Your task to perform on an android device: change notifications settings Image 0: 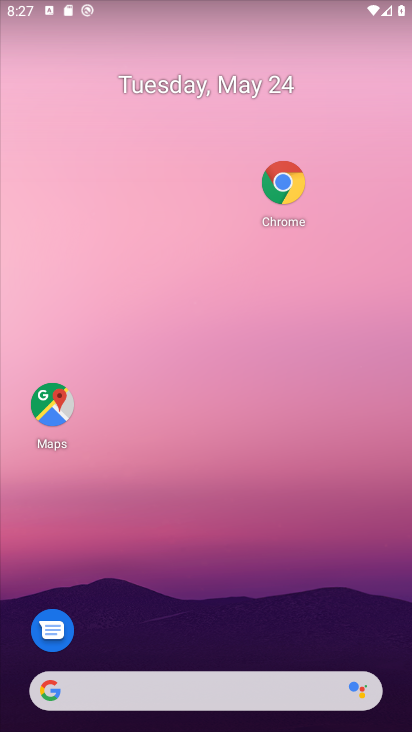
Step 0: press home button
Your task to perform on an android device: change notifications settings Image 1: 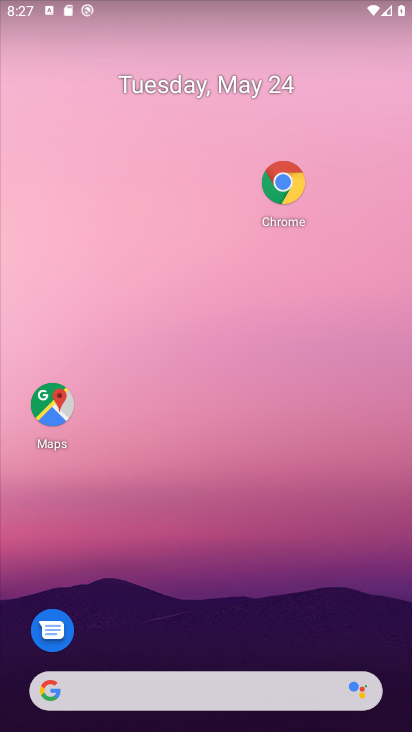
Step 1: drag from (248, 711) to (83, 19)
Your task to perform on an android device: change notifications settings Image 2: 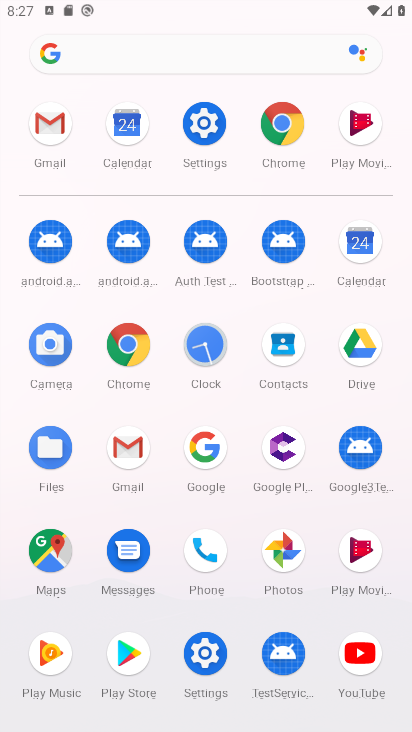
Step 2: click (200, 131)
Your task to perform on an android device: change notifications settings Image 3: 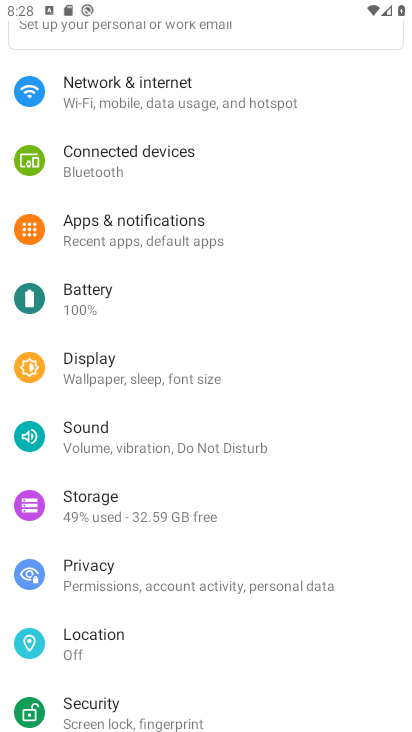
Step 3: drag from (134, 127) to (157, 221)
Your task to perform on an android device: change notifications settings Image 4: 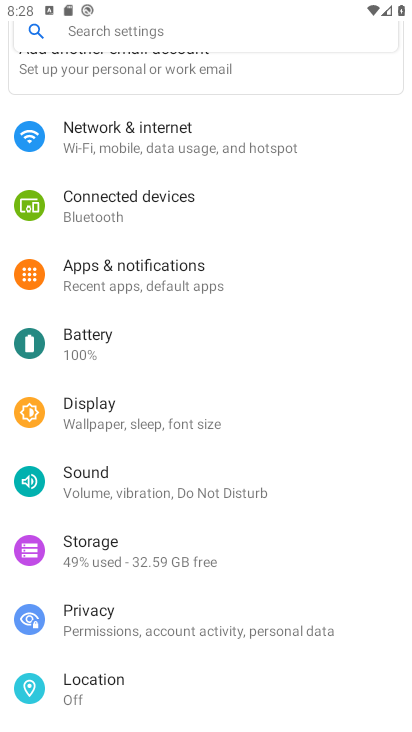
Step 4: click (131, 38)
Your task to perform on an android device: change notifications settings Image 5: 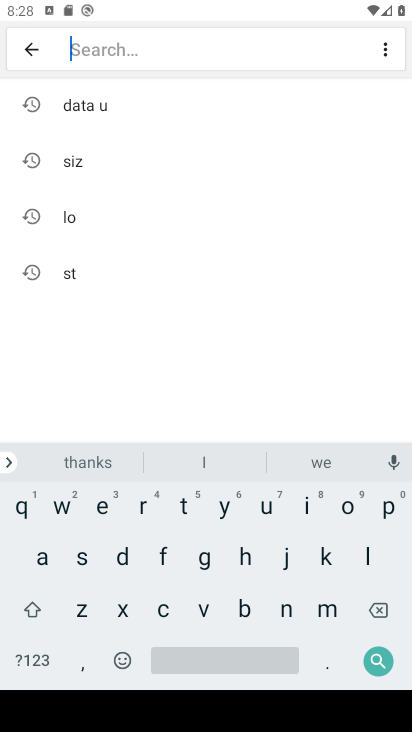
Step 5: click (285, 610)
Your task to perform on an android device: change notifications settings Image 6: 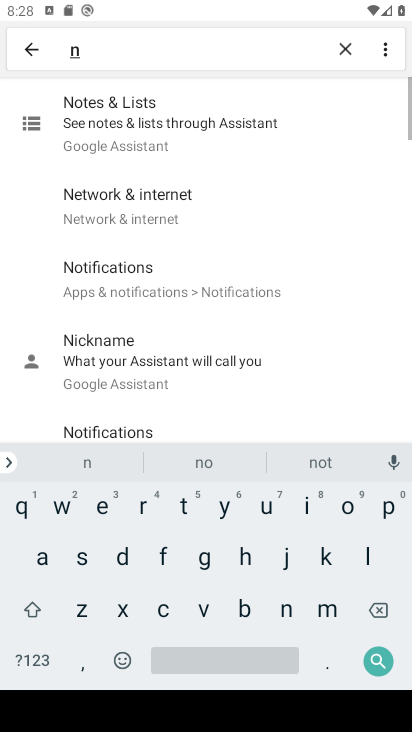
Step 6: click (347, 509)
Your task to perform on an android device: change notifications settings Image 7: 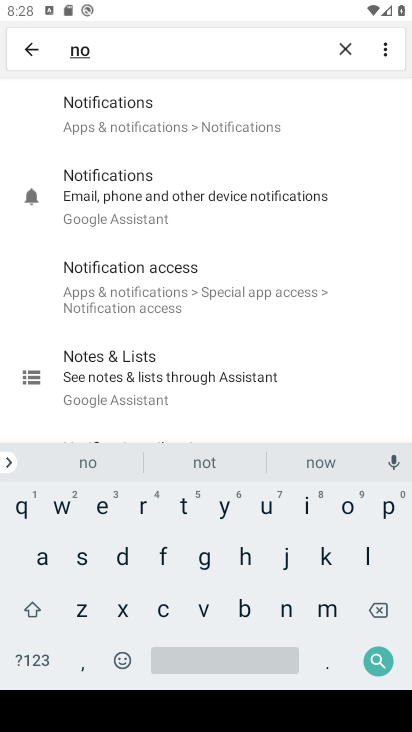
Step 7: click (116, 101)
Your task to perform on an android device: change notifications settings Image 8: 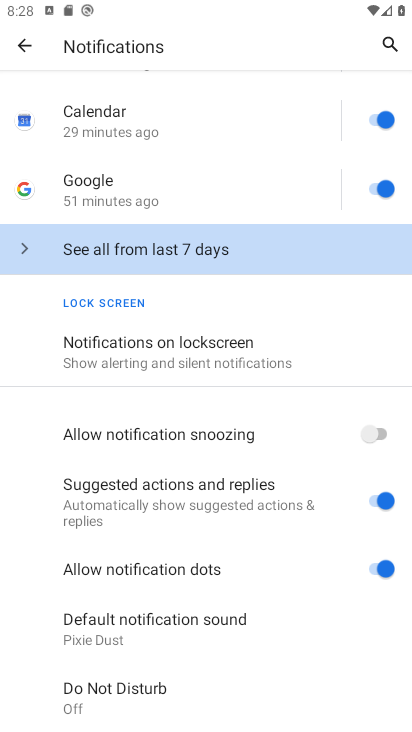
Step 8: click (187, 347)
Your task to perform on an android device: change notifications settings Image 9: 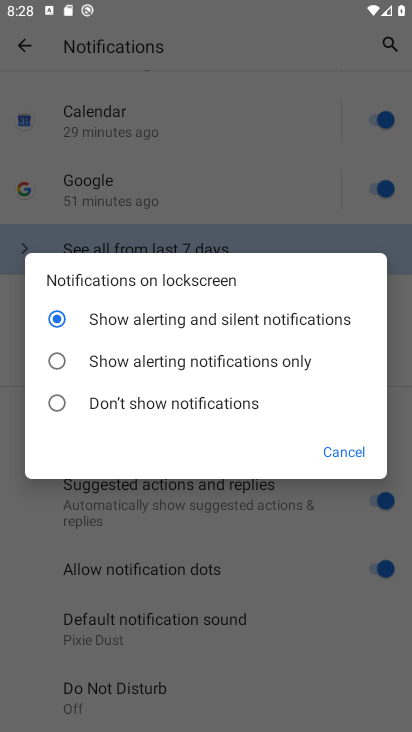
Step 9: click (114, 347)
Your task to perform on an android device: change notifications settings Image 10: 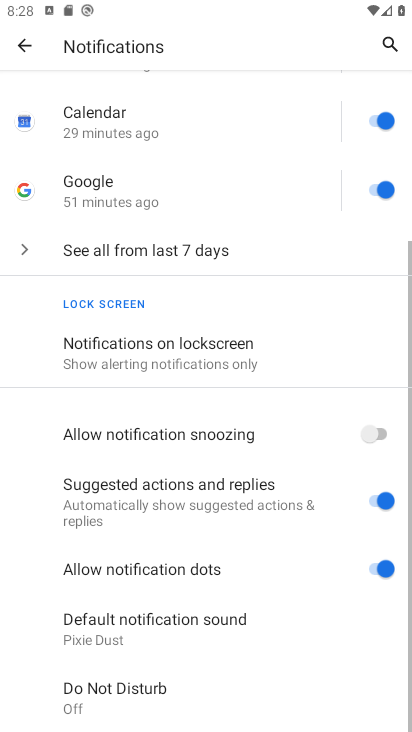
Step 10: task complete